Your task to perform on an android device: Turn off the flashlight Image 0: 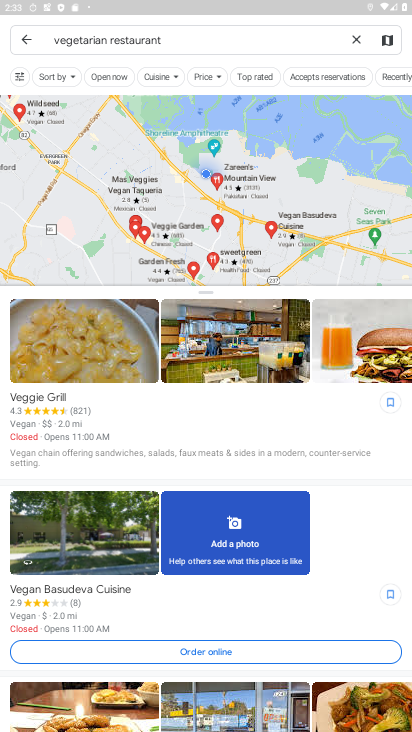
Step 0: press home button
Your task to perform on an android device: Turn off the flashlight Image 1: 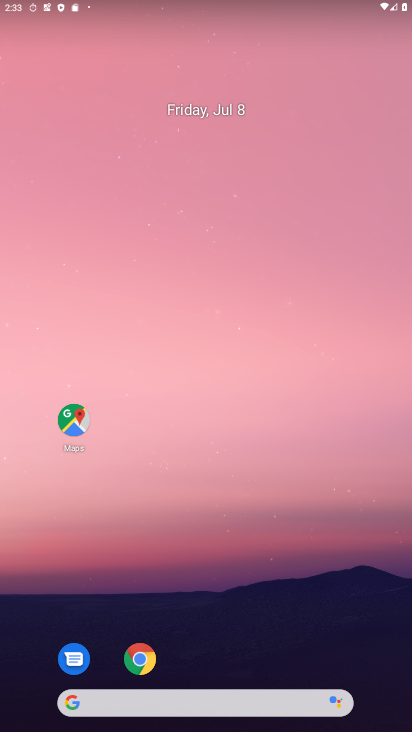
Step 1: drag from (292, 590) to (317, 214)
Your task to perform on an android device: Turn off the flashlight Image 2: 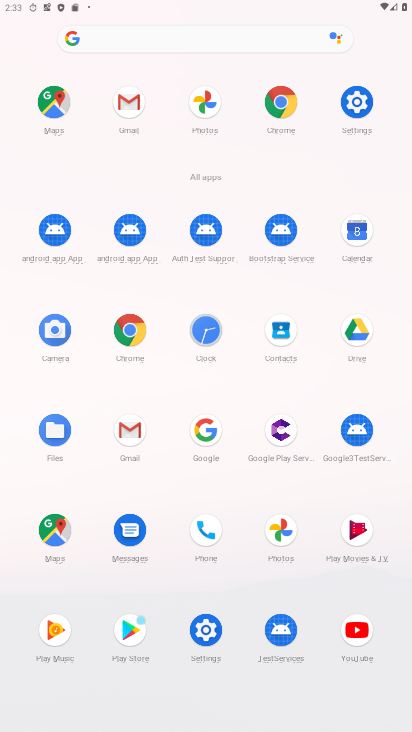
Step 2: click (360, 101)
Your task to perform on an android device: Turn off the flashlight Image 3: 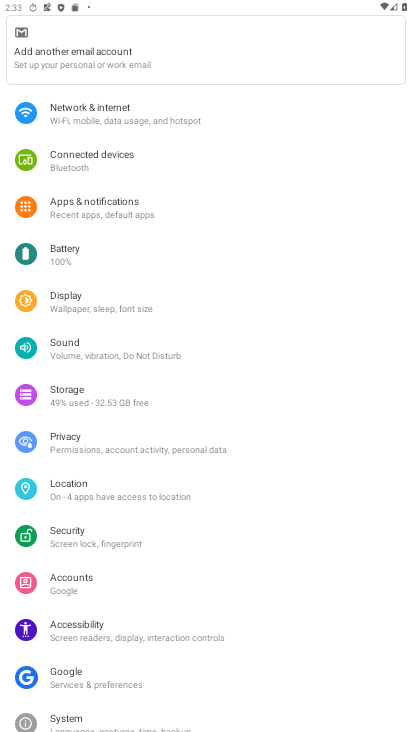
Step 3: task complete